Your task to perform on an android device: Clear all items from cart on walmart.com. Add "macbook pro 13 inch" to the cart on walmart.com, then select checkout. Image 0: 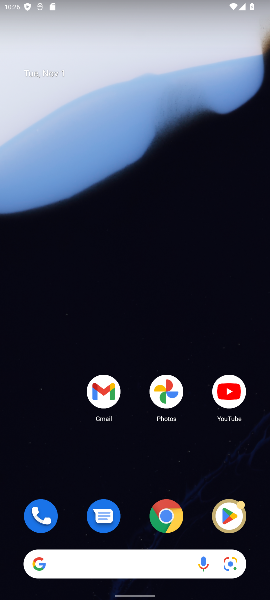
Step 0: click (162, 521)
Your task to perform on an android device: Clear all items from cart on walmart.com. Add "macbook pro 13 inch" to the cart on walmart.com, then select checkout. Image 1: 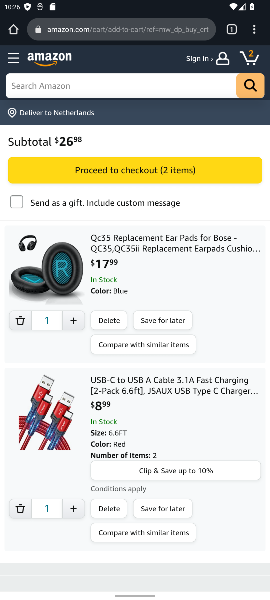
Step 1: click (234, 27)
Your task to perform on an android device: Clear all items from cart on walmart.com. Add "macbook pro 13 inch" to the cart on walmart.com, then select checkout. Image 2: 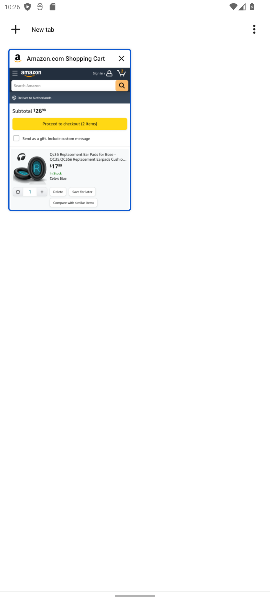
Step 2: click (13, 32)
Your task to perform on an android device: Clear all items from cart on walmart.com. Add "macbook pro 13 inch" to the cart on walmart.com, then select checkout. Image 3: 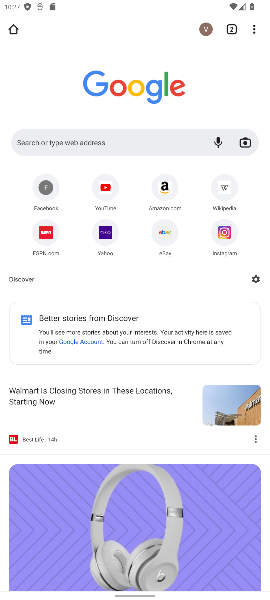
Step 3: click (90, 144)
Your task to perform on an android device: Clear all items from cart on walmart.com. Add "macbook pro 13 inch" to the cart on walmart.com, then select checkout. Image 4: 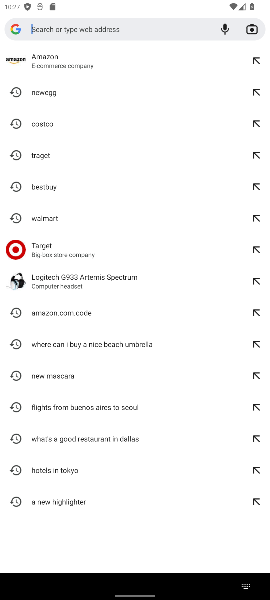
Step 4: type "walmart"
Your task to perform on an android device: Clear all items from cart on walmart.com. Add "macbook pro 13 inch" to the cart on walmart.com, then select checkout. Image 5: 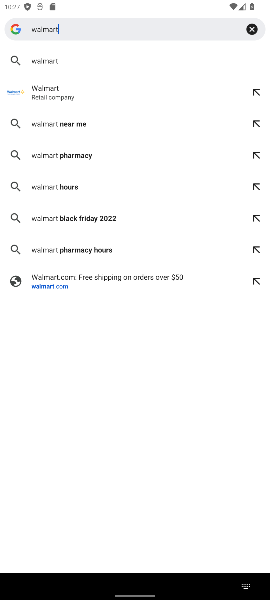
Step 5: click (43, 89)
Your task to perform on an android device: Clear all items from cart on walmart.com. Add "macbook pro 13 inch" to the cart on walmart.com, then select checkout. Image 6: 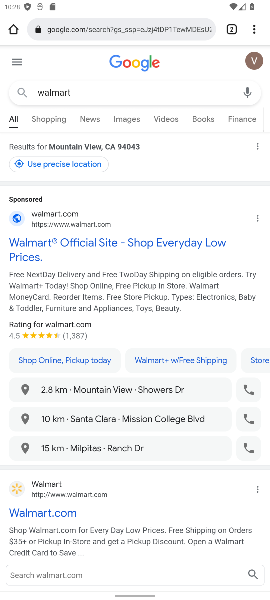
Step 6: click (54, 510)
Your task to perform on an android device: Clear all items from cart on walmart.com. Add "macbook pro 13 inch" to the cart on walmart.com, then select checkout. Image 7: 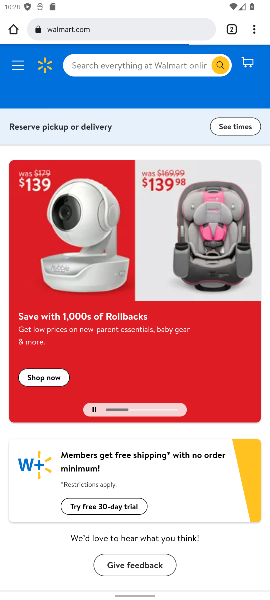
Step 7: click (138, 67)
Your task to perform on an android device: Clear all items from cart on walmart.com. Add "macbook pro 13 inch" to the cart on walmart.com, then select checkout. Image 8: 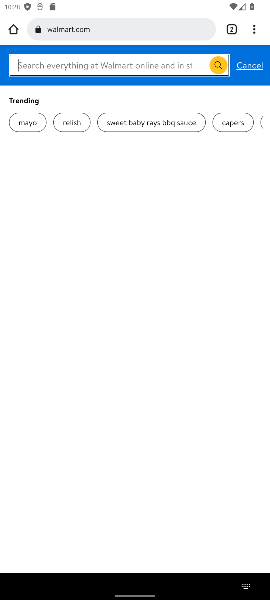
Step 8: type "macbook pro 13 inch"
Your task to perform on an android device: Clear all items from cart on walmart.com. Add "macbook pro 13 inch" to the cart on walmart.com, then select checkout. Image 9: 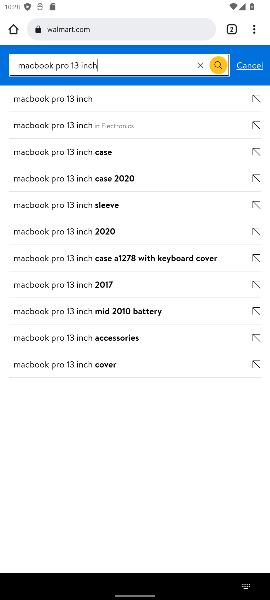
Step 9: click (67, 101)
Your task to perform on an android device: Clear all items from cart on walmart.com. Add "macbook pro 13 inch" to the cart on walmart.com, then select checkout. Image 10: 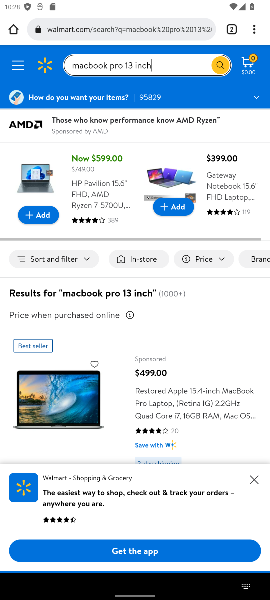
Step 10: click (253, 475)
Your task to perform on an android device: Clear all items from cart on walmart.com. Add "macbook pro 13 inch" to the cart on walmart.com, then select checkout. Image 11: 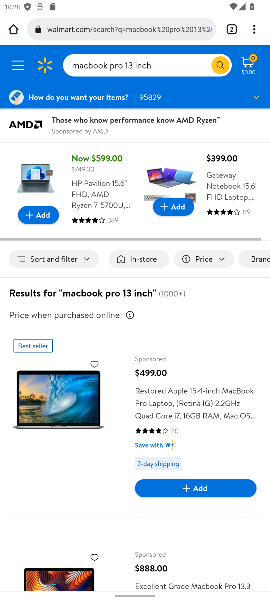
Step 11: click (210, 490)
Your task to perform on an android device: Clear all items from cart on walmart.com. Add "macbook pro 13 inch" to the cart on walmart.com, then select checkout. Image 12: 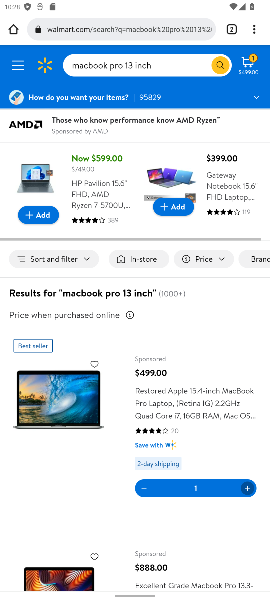
Step 12: task complete